Your task to perform on an android device: delete location history Image 0: 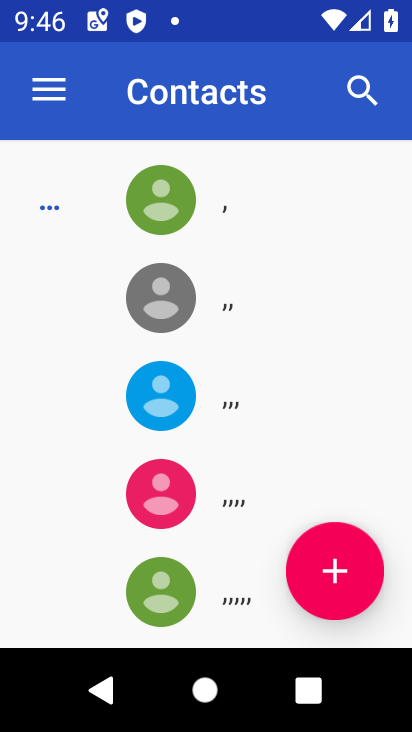
Step 0: press home button
Your task to perform on an android device: delete location history Image 1: 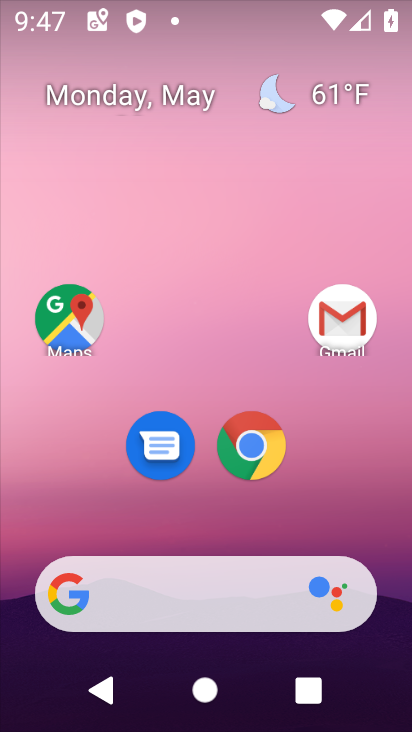
Step 1: drag from (377, 540) to (381, 164)
Your task to perform on an android device: delete location history Image 2: 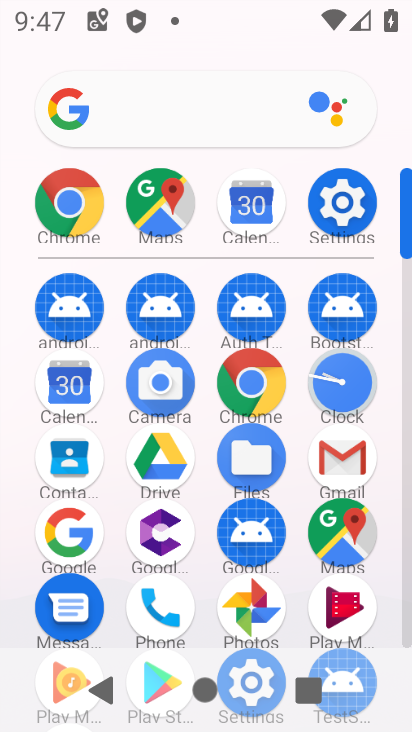
Step 2: click (344, 540)
Your task to perform on an android device: delete location history Image 3: 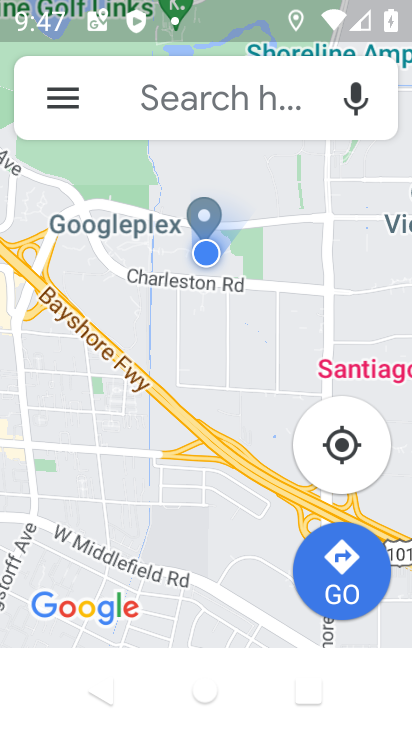
Step 3: click (64, 93)
Your task to perform on an android device: delete location history Image 4: 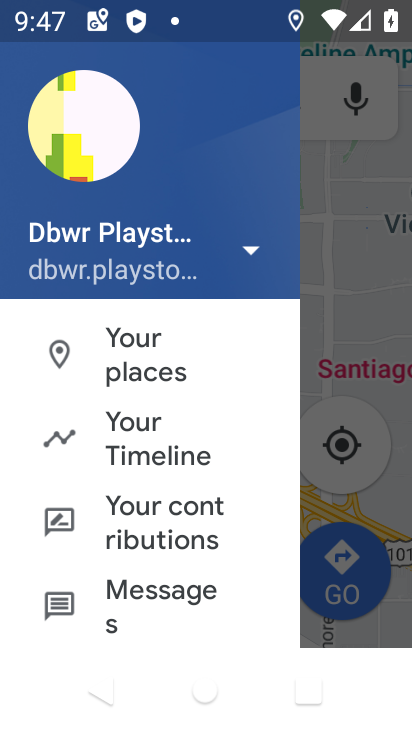
Step 4: click (175, 445)
Your task to perform on an android device: delete location history Image 5: 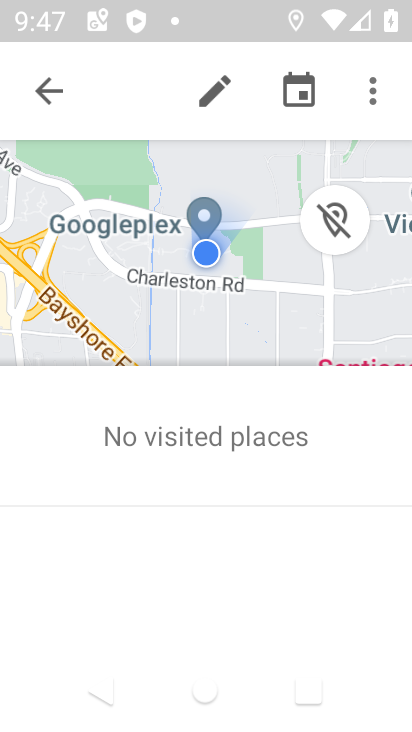
Step 5: click (372, 100)
Your task to perform on an android device: delete location history Image 6: 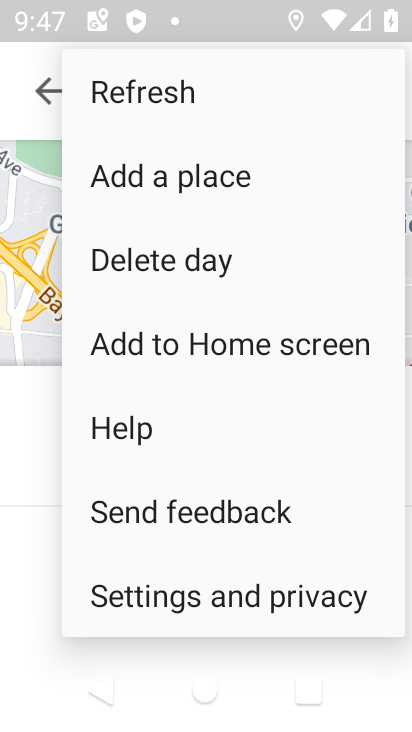
Step 6: click (280, 595)
Your task to perform on an android device: delete location history Image 7: 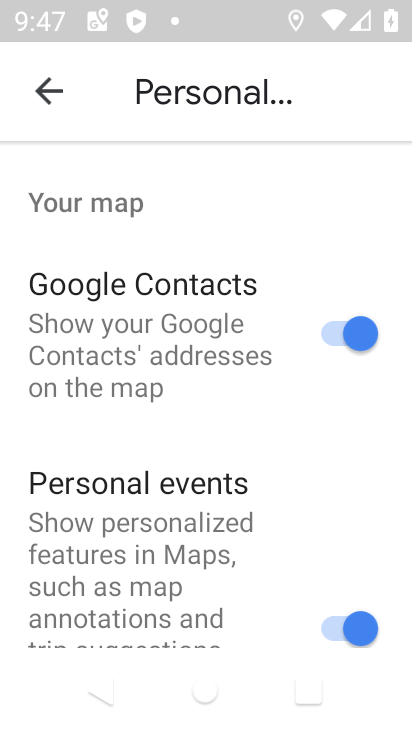
Step 7: drag from (321, 512) to (311, 351)
Your task to perform on an android device: delete location history Image 8: 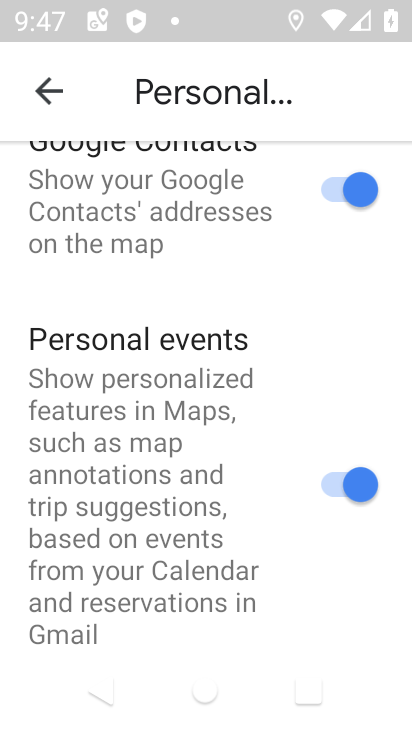
Step 8: drag from (308, 560) to (308, 429)
Your task to perform on an android device: delete location history Image 9: 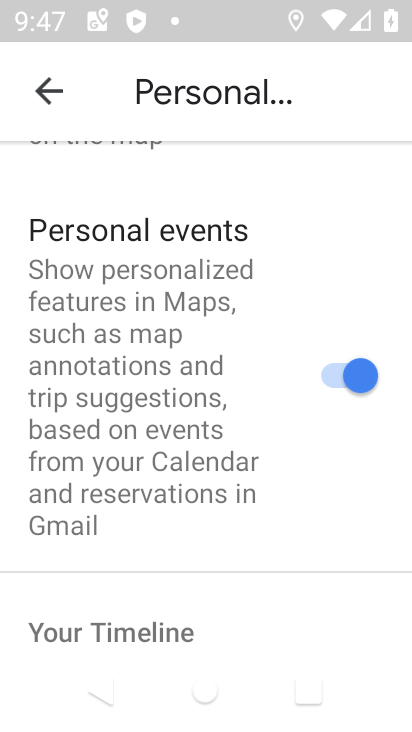
Step 9: drag from (326, 555) to (321, 429)
Your task to perform on an android device: delete location history Image 10: 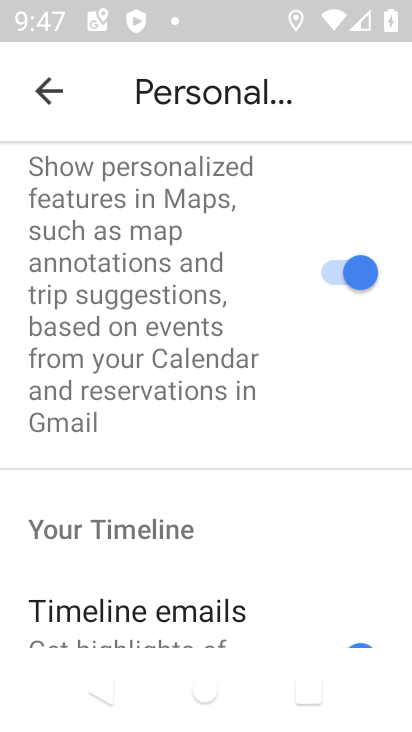
Step 10: drag from (327, 567) to (303, 423)
Your task to perform on an android device: delete location history Image 11: 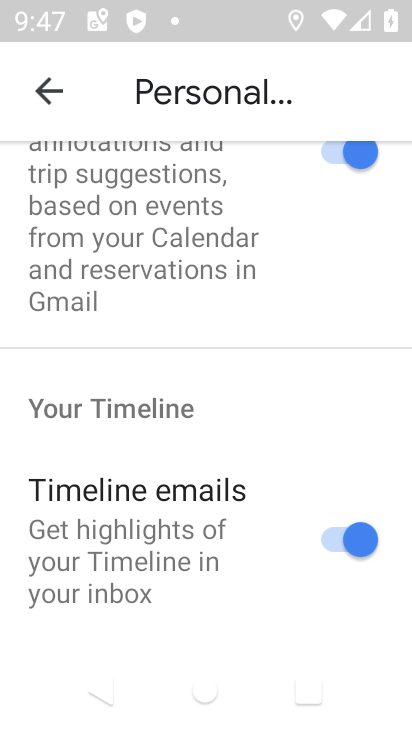
Step 11: drag from (293, 549) to (295, 412)
Your task to perform on an android device: delete location history Image 12: 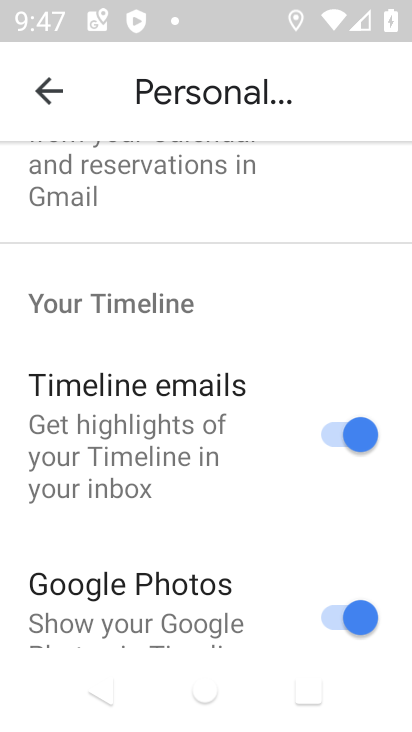
Step 12: drag from (273, 553) to (269, 370)
Your task to perform on an android device: delete location history Image 13: 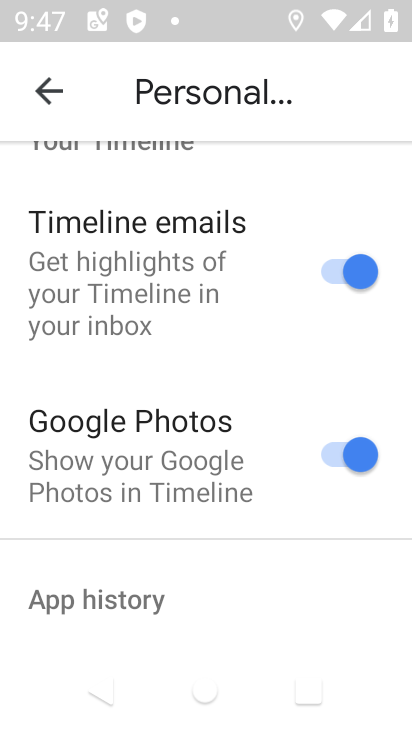
Step 13: drag from (286, 547) to (274, 290)
Your task to perform on an android device: delete location history Image 14: 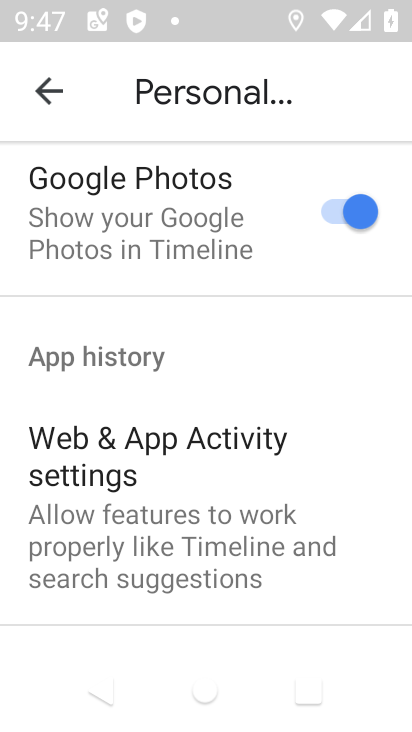
Step 14: drag from (317, 577) to (313, 207)
Your task to perform on an android device: delete location history Image 15: 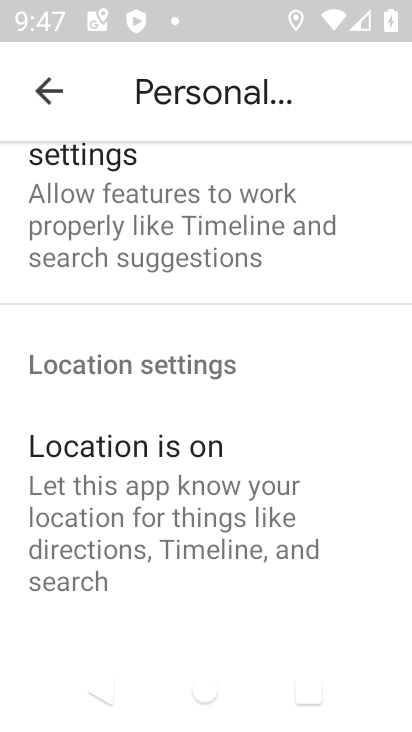
Step 15: drag from (340, 541) to (344, 265)
Your task to perform on an android device: delete location history Image 16: 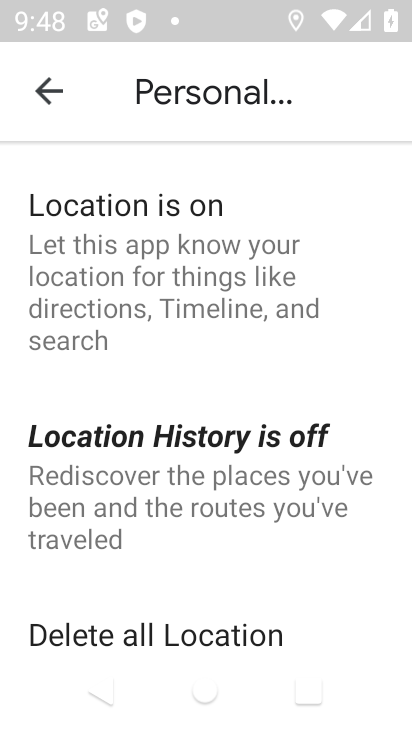
Step 16: drag from (354, 552) to (345, 358)
Your task to perform on an android device: delete location history Image 17: 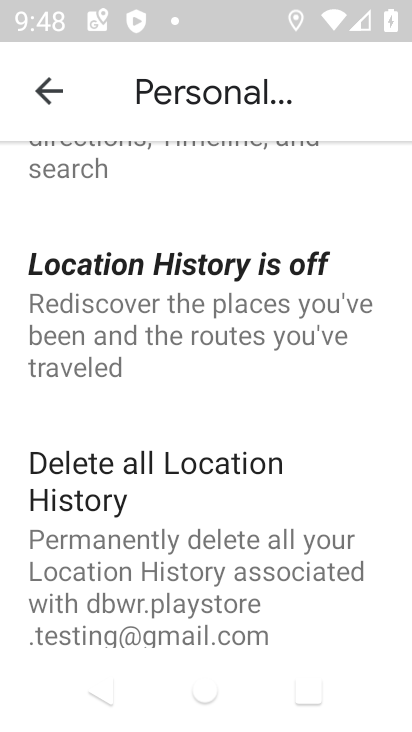
Step 17: drag from (377, 626) to (357, 333)
Your task to perform on an android device: delete location history Image 18: 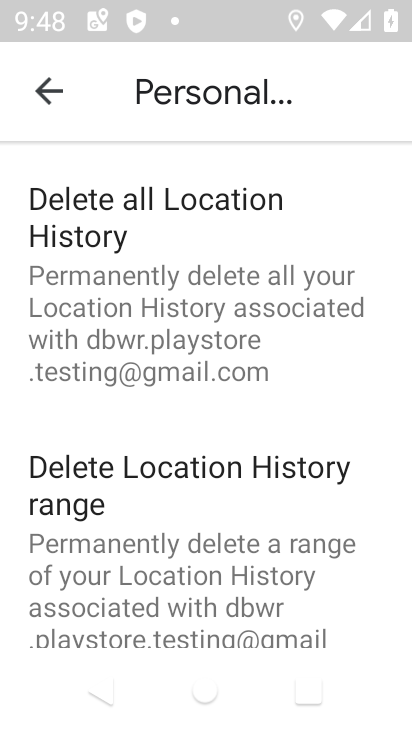
Step 18: click (197, 285)
Your task to perform on an android device: delete location history Image 19: 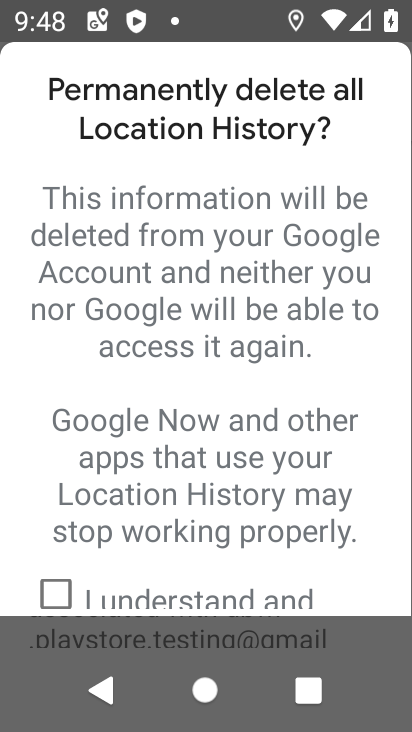
Step 19: drag from (229, 451) to (233, 272)
Your task to perform on an android device: delete location history Image 20: 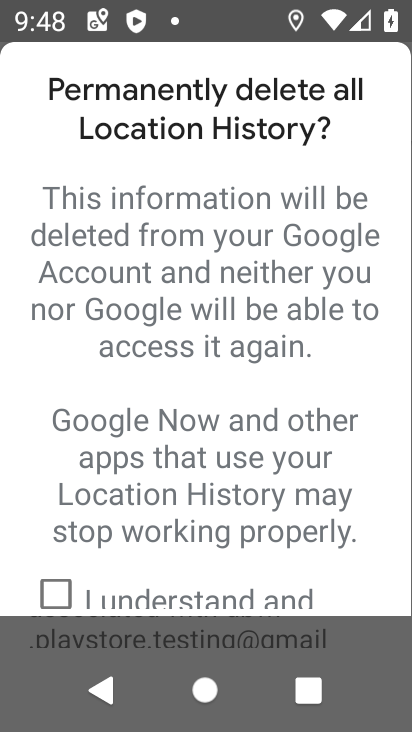
Step 20: click (66, 582)
Your task to perform on an android device: delete location history Image 21: 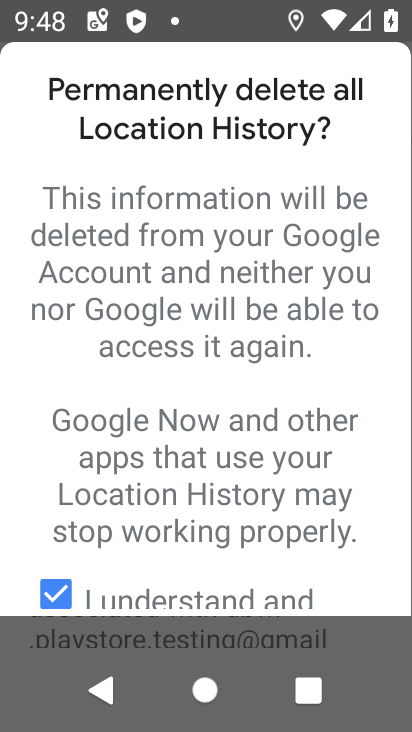
Step 21: task complete